Your task to perform on an android device: turn off improve location accuracy Image 0: 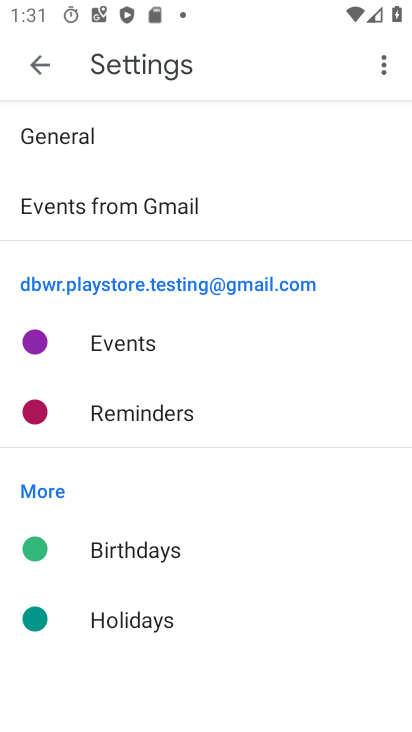
Step 0: press home button
Your task to perform on an android device: turn off improve location accuracy Image 1: 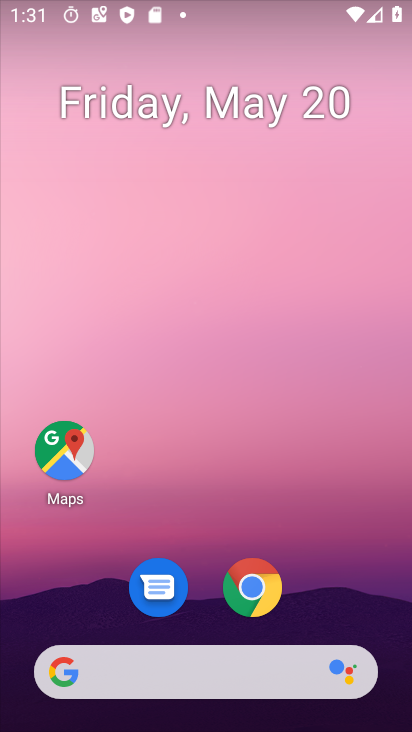
Step 1: drag from (331, 469) to (299, 89)
Your task to perform on an android device: turn off improve location accuracy Image 2: 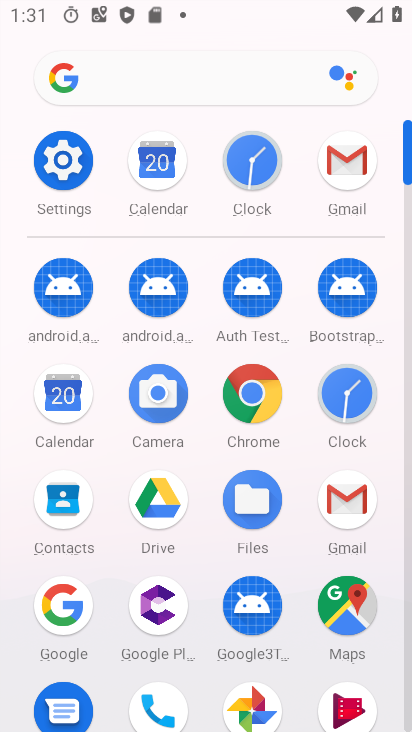
Step 2: click (79, 159)
Your task to perform on an android device: turn off improve location accuracy Image 3: 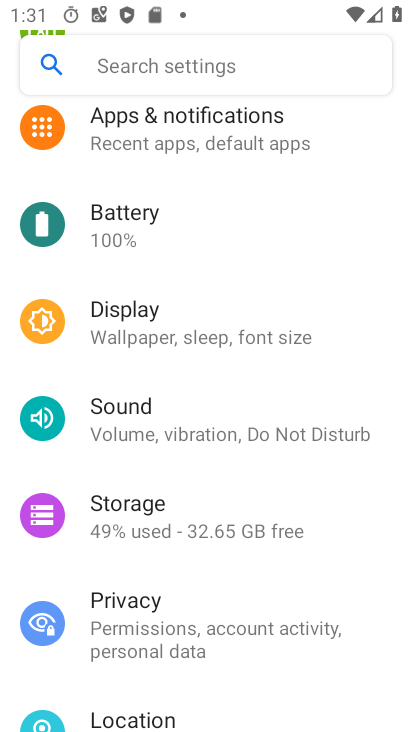
Step 3: drag from (192, 688) to (281, 362)
Your task to perform on an android device: turn off improve location accuracy Image 4: 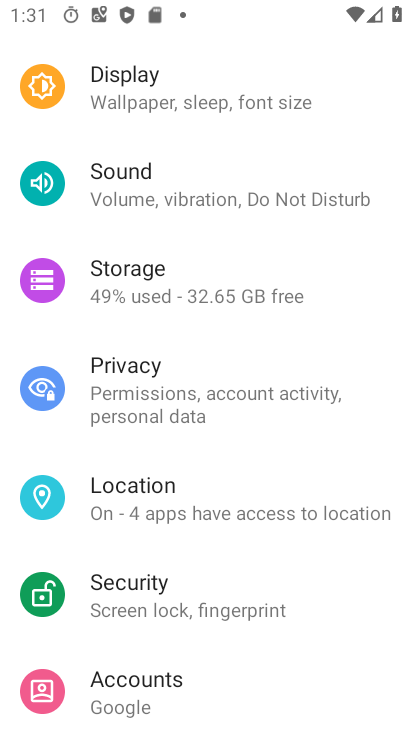
Step 4: click (171, 499)
Your task to perform on an android device: turn off improve location accuracy Image 5: 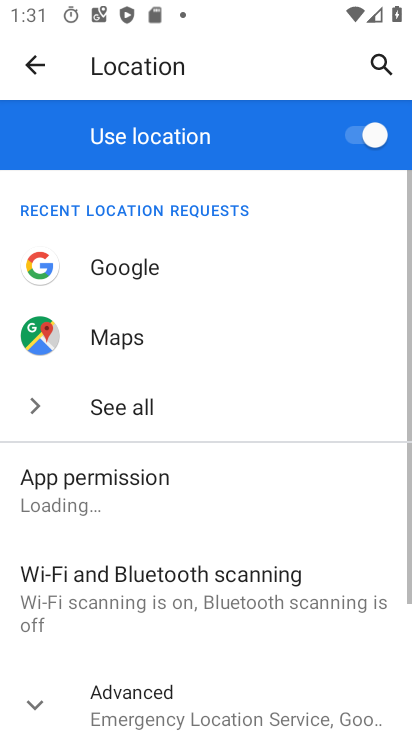
Step 5: drag from (136, 491) to (159, 450)
Your task to perform on an android device: turn off improve location accuracy Image 6: 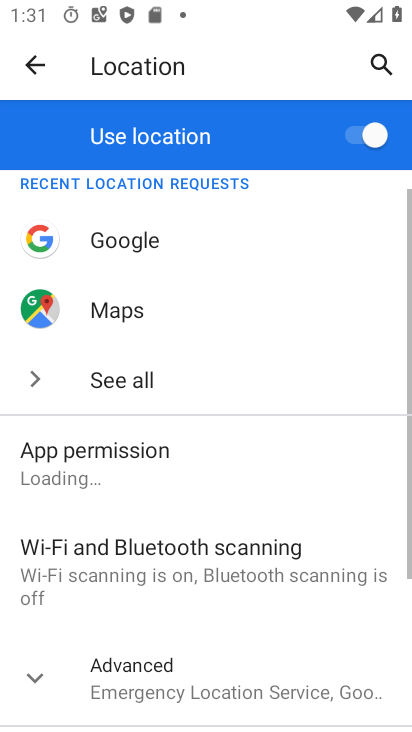
Step 6: click (149, 459)
Your task to perform on an android device: turn off improve location accuracy Image 7: 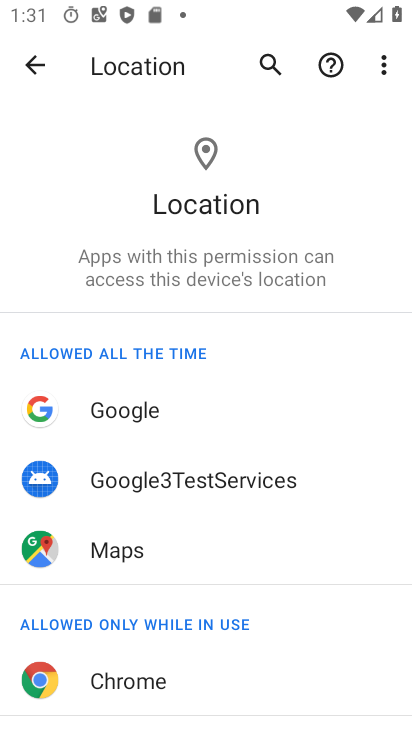
Step 7: click (51, 61)
Your task to perform on an android device: turn off improve location accuracy Image 8: 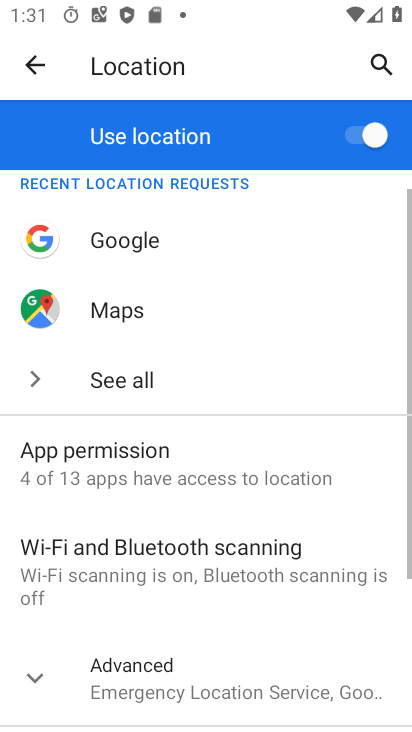
Step 8: click (201, 666)
Your task to perform on an android device: turn off improve location accuracy Image 9: 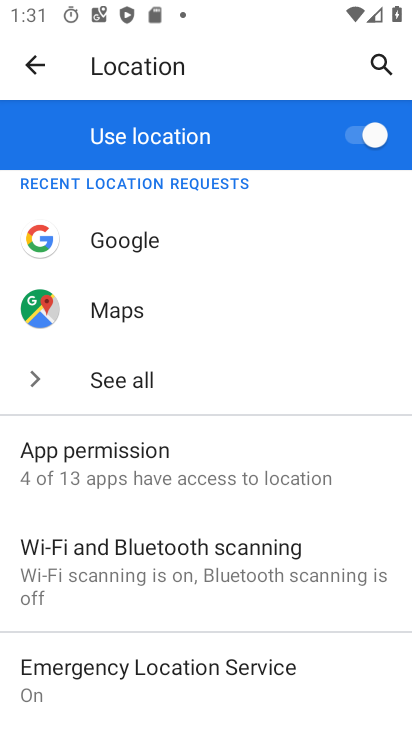
Step 9: click (163, 447)
Your task to perform on an android device: turn off improve location accuracy Image 10: 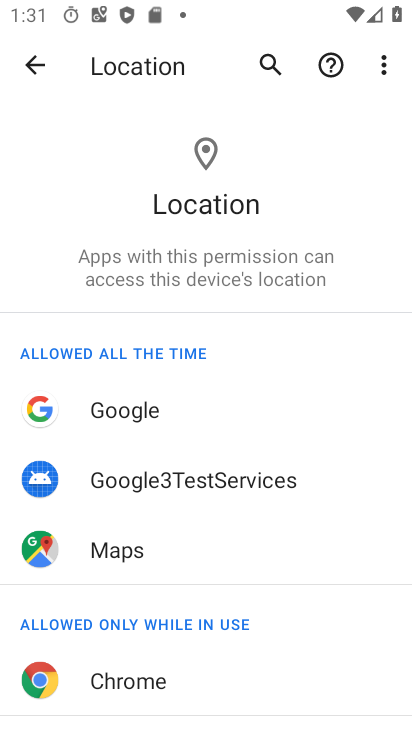
Step 10: click (26, 54)
Your task to perform on an android device: turn off improve location accuracy Image 11: 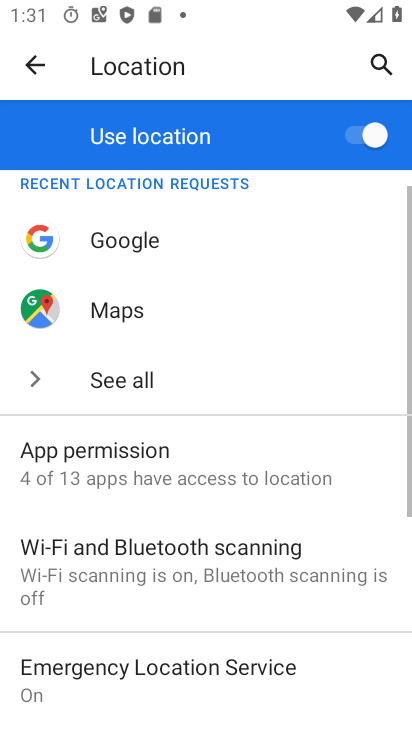
Step 11: drag from (192, 614) to (301, 142)
Your task to perform on an android device: turn off improve location accuracy Image 12: 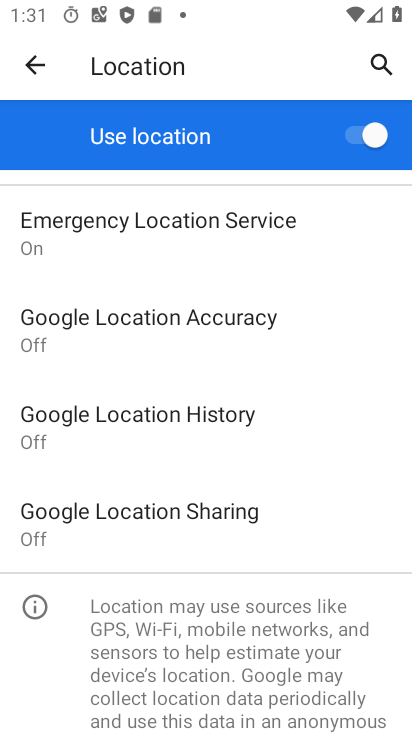
Step 12: click (243, 326)
Your task to perform on an android device: turn off improve location accuracy Image 13: 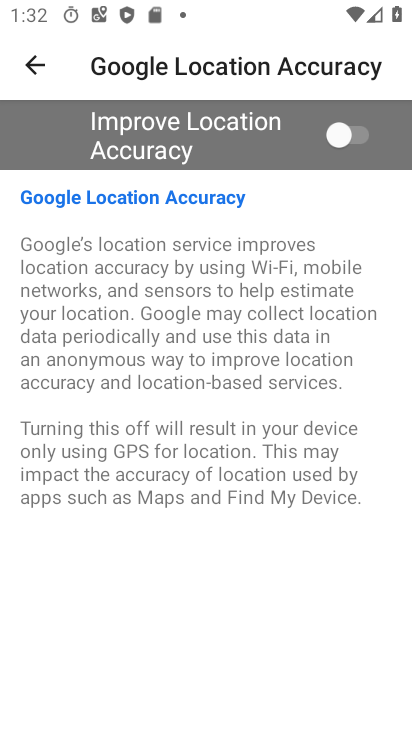
Step 13: task complete